Your task to perform on an android device: change notifications settings Image 0: 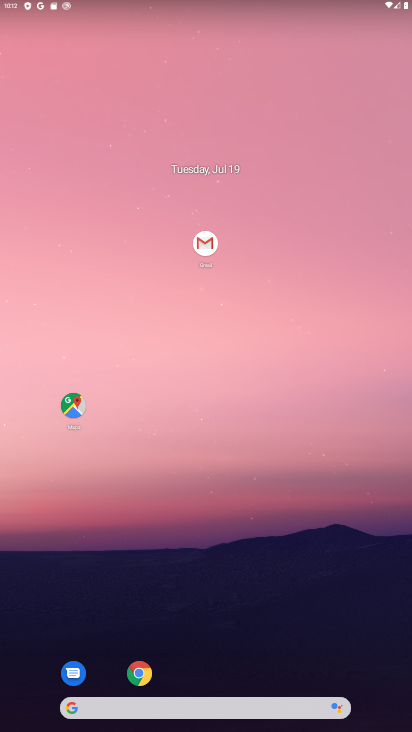
Step 0: drag from (284, 648) to (253, 13)
Your task to perform on an android device: change notifications settings Image 1: 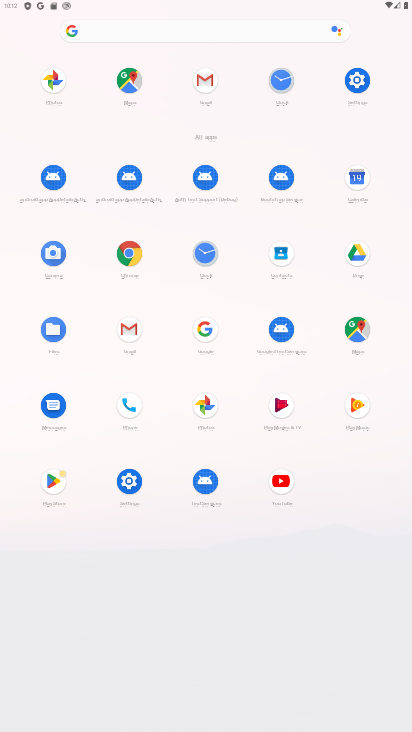
Step 1: click (364, 112)
Your task to perform on an android device: change notifications settings Image 2: 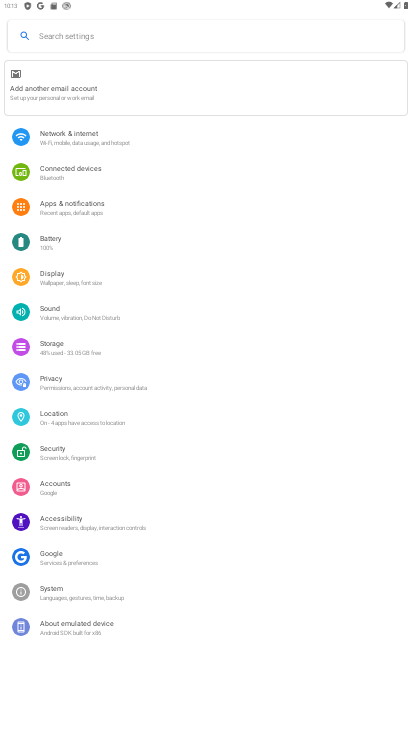
Step 2: click (77, 204)
Your task to perform on an android device: change notifications settings Image 3: 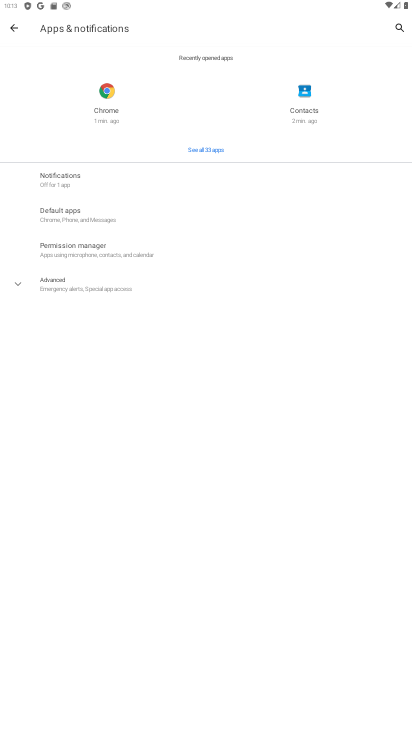
Step 3: click (74, 175)
Your task to perform on an android device: change notifications settings Image 4: 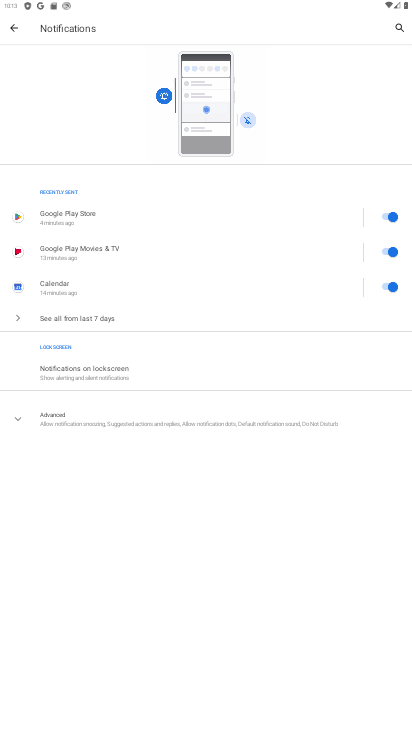
Step 4: click (392, 248)
Your task to perform on an android device: change notifications settings Image 5: 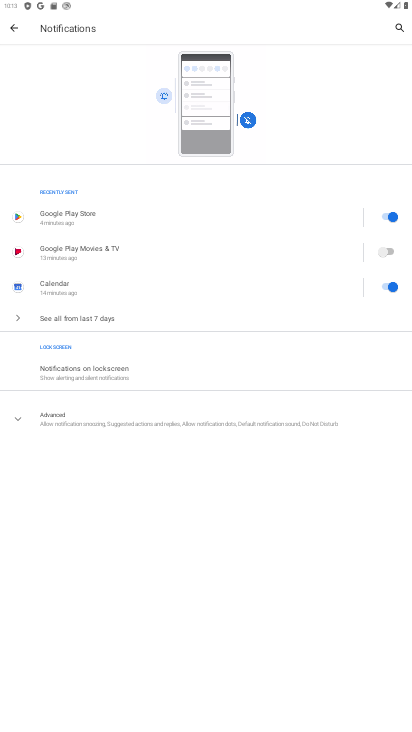
Step 5: task complete